Your task to perform on an android device: Open calendar and show me the second week of next month Image 0: 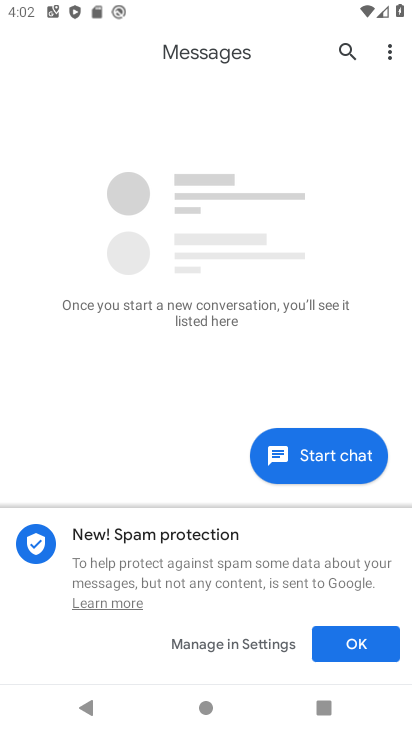
Step 0: press home button
Your task to perform on an android device: Open calendar and show me the second week of next month Image 1: 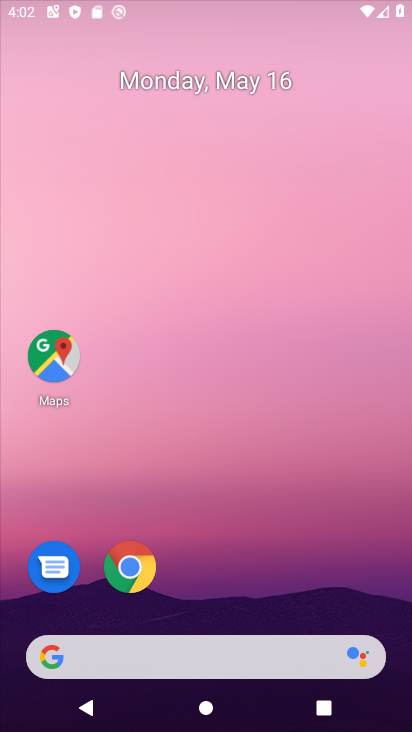
Step 1: drag from (258, 659) to (223, 21)
Your task to perform on an android device: Open calendar and show me the second week of next month Image 2: 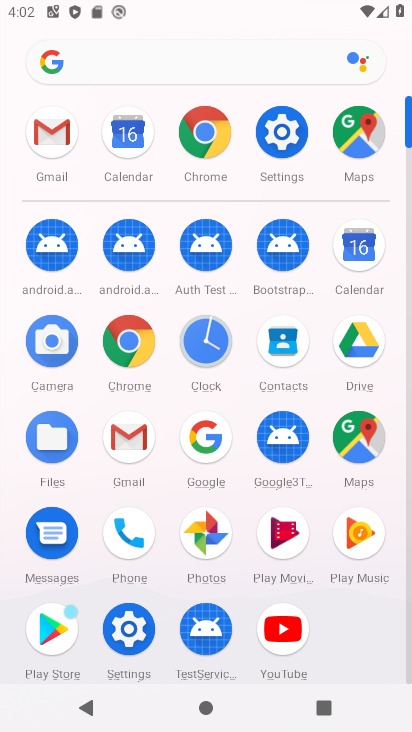
Step 2: click (355, 259)
Your task to perform on an android device: Open calendar and show me the second week of next month Image 3: 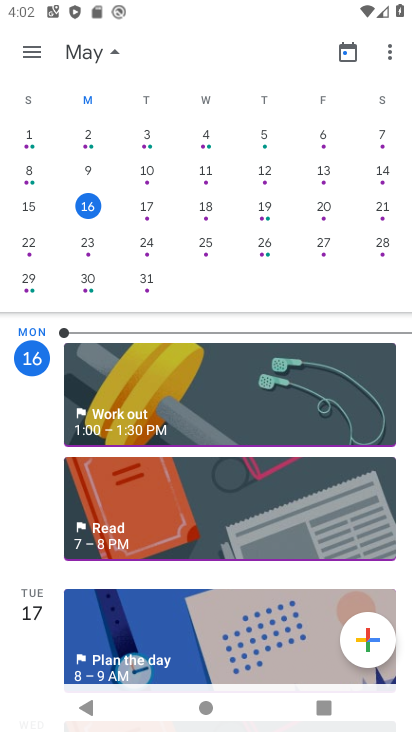
Step 3: drag from (294, 212) to (23, 225)
Your task to perform on an android device: Open calendar and show me the second week of next month Image 4: 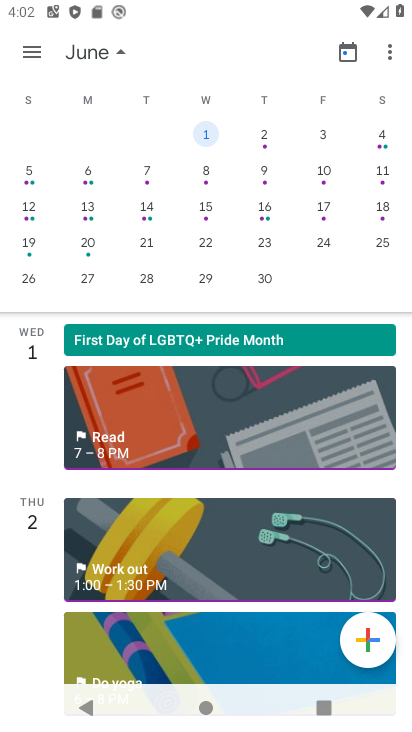
Step 4: click (209, 171)
Your task to perform on an android device: Open calendar and show me the second week of next month Image 5: 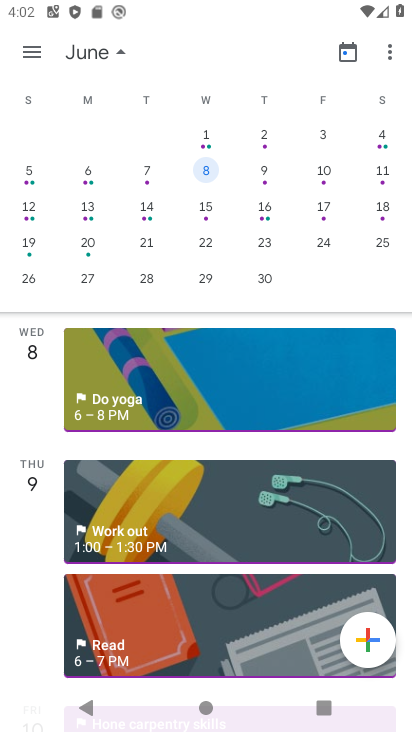
Step 5: click (36, 52)
Your task to perform on an android device: Open calendar and show me the second week of next month Image 6: 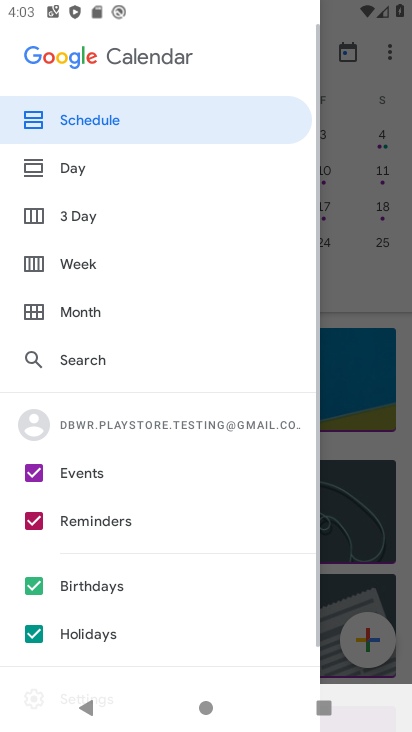
Step 6: click (83, 249)
Your task to perform on an android device: Open calendar and show me the second week of next month Image 7: 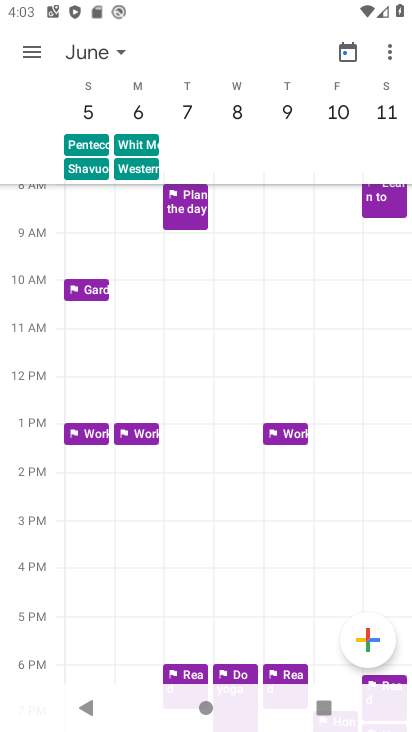
Step 7: task complete